Your task to perform on an android device: change your default location settings in chrome Image 0: 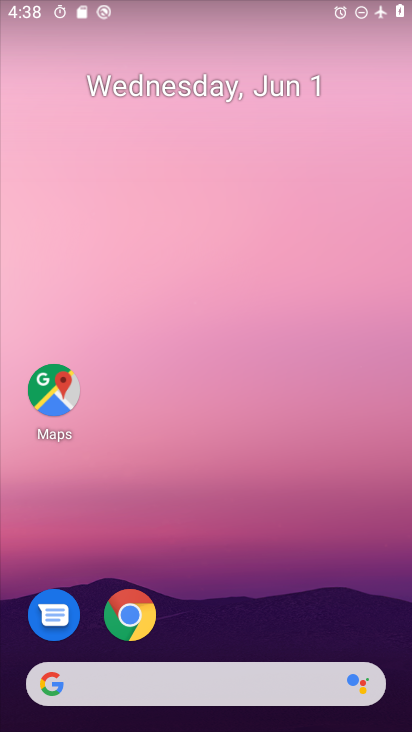
Step 0: drag from (245, 647) to (201, 150)
Your task to perform on an android device: change your default location settings in chrome Image 1: 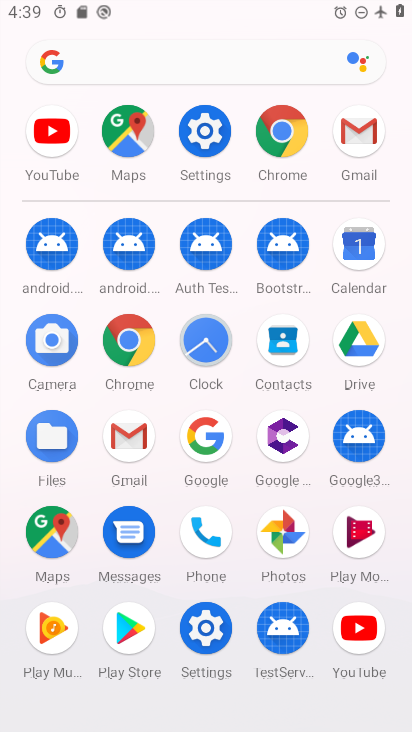
Step 1: click (273, 149)
Your task to perform on an android device: change your default location settings in chrome Image 2: 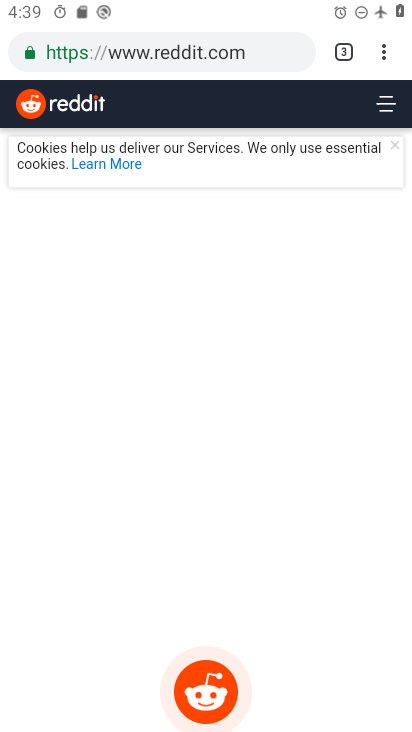
Step 2: click (385, 55)
Your task to perform on an android device: change your default location settings in chrome Image 3: 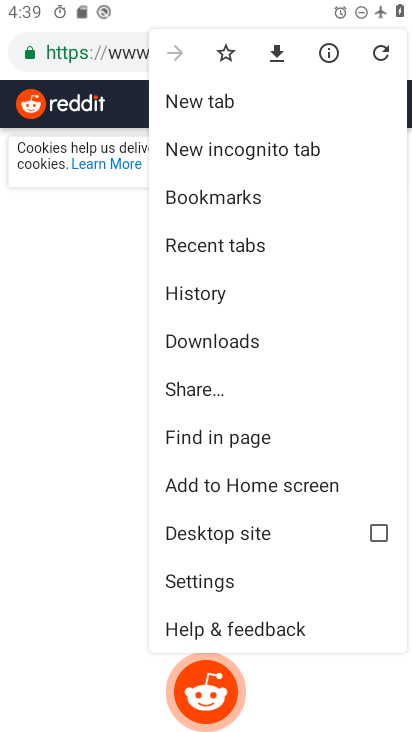
Step 3: click (226, 582)
Your task to perform on an android device: change your default location settings in chrome Image 4: 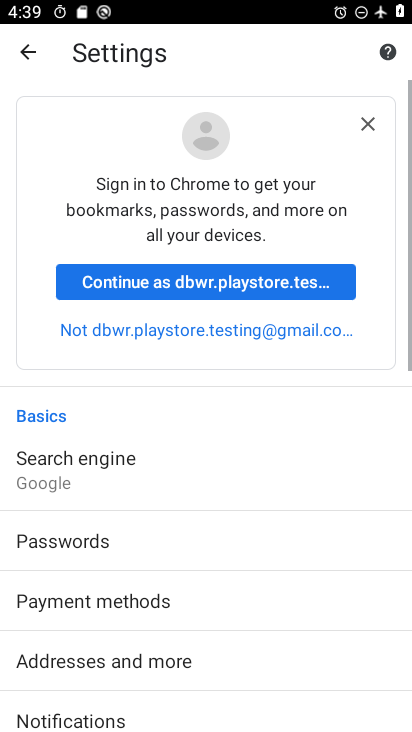
Step 4: drag from (226, 588) to (248, 374)
Your task to perform on an android device: change your default location settings in chrome Image 5: 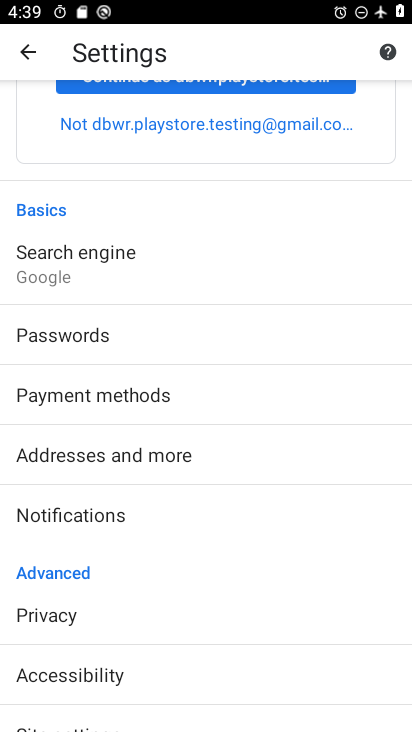
Step 5: click (244, 544)
Your task to perform on an android device: change your default location settings in chrome Image 6: 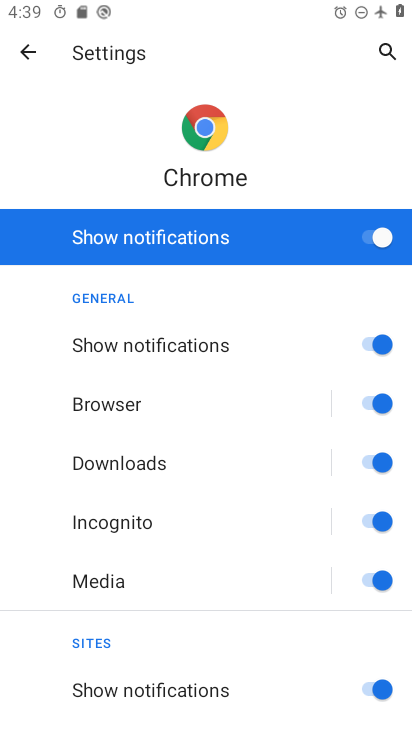
Step 6: press back button
Your task to perform on an android device: change your default location settings in chrome Image 7: 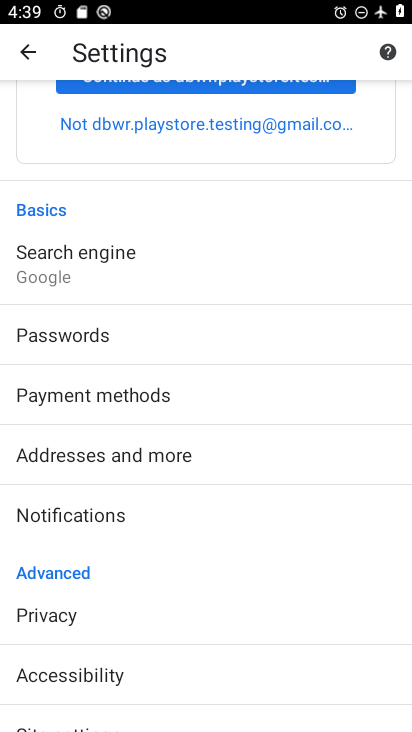
Step 7: click (141, 677)
Your task to perform on an android device: change your default location settings in chrome Image 8: 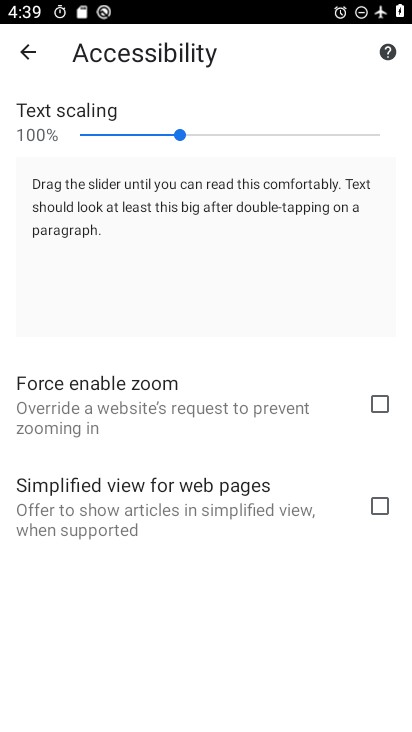
Step 8: press back button
Your task to perform on an android device: change your default location settings in chrome Image 9: 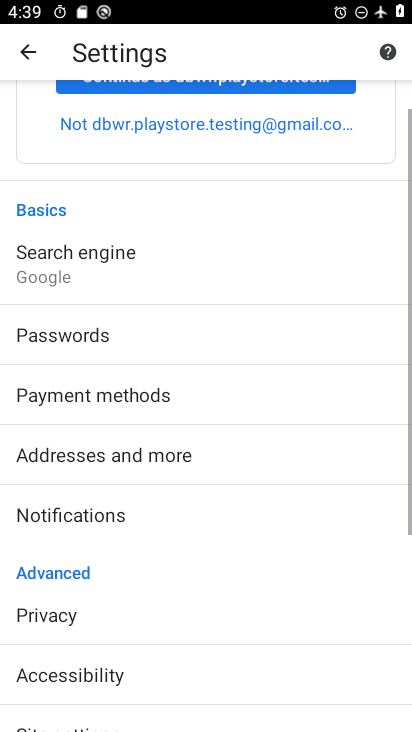
Step 9: click (110, 622)
Your task to perform on an android device: change your default location settings in chrome Image 10: 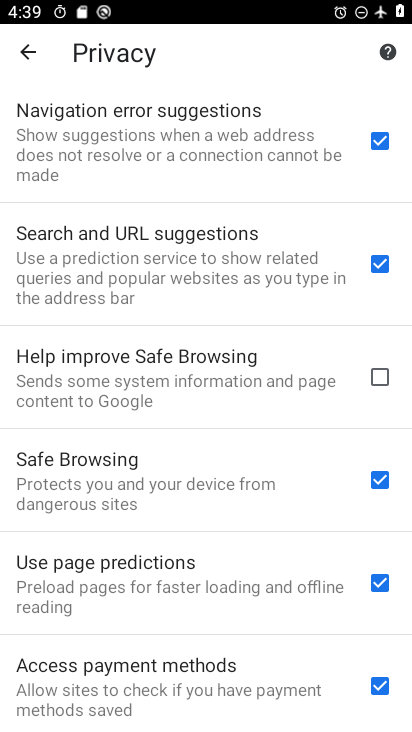
Step 10: press back button
Your task to perform on an android device: change your default location settings in chrome Image 11: 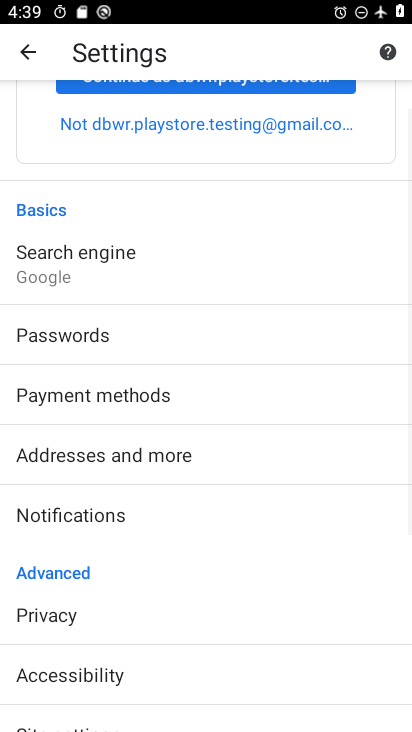
Step 11: drag from (224, 543) to (256, 340)
Your task to perform on an android device: change your default location settings in chrome Image 12: 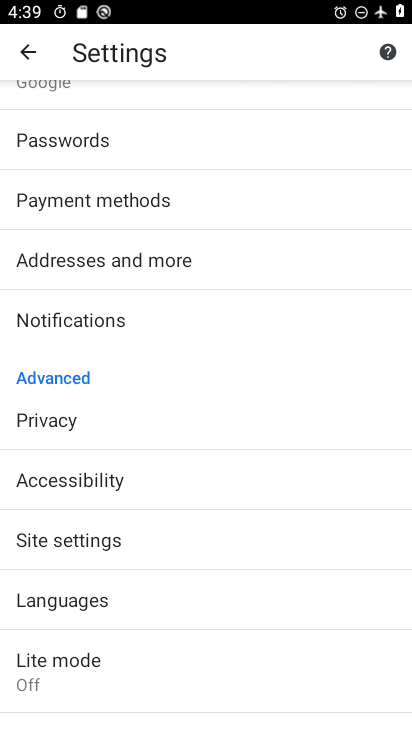
Step 12: drag from (191, 663) to (272, 296)
Your task to perform on an android device: change your default location settings in chrome Image 13: 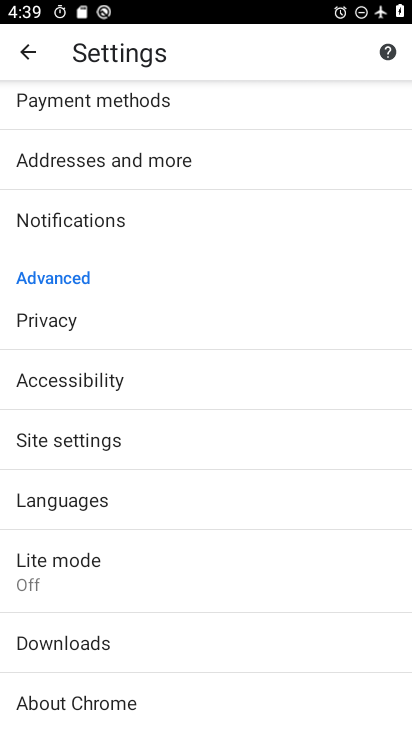
Step 13: click (147, 718)
Your task to perform on an android device: change your default location settings in chrome Image 14: 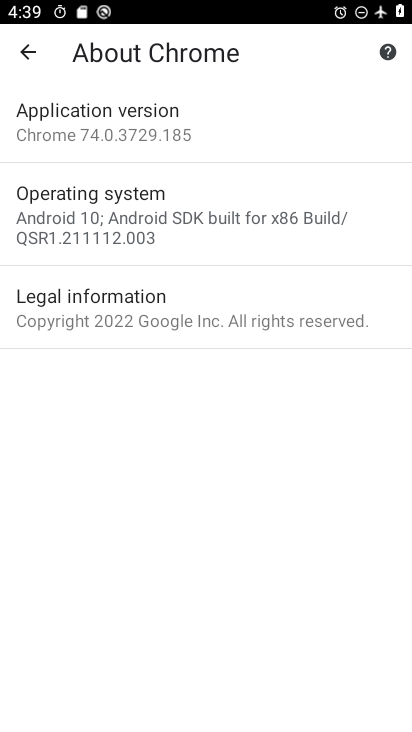
Step 14: press back button
Your task to perform on an android device: change your default location settings in chrome Image 15: 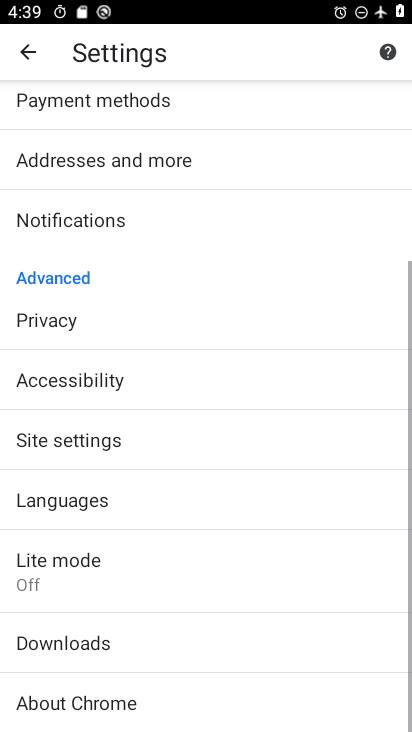
Step 15: drag from (308, 293) to (270, 496)
Your task to perform on an android device: change your default location settings in chrome Image 16: 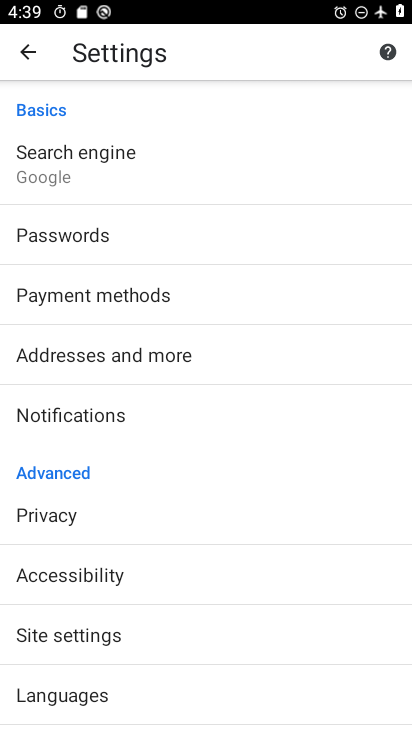
Step 16: click (57, 471)
Your task to perform on an android device: change your default location settings in chrome Image 17: 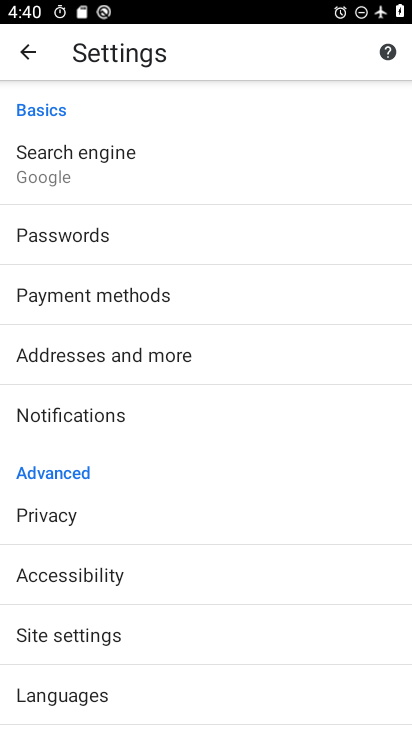
Step 17: click (106, 184)
Your task to perform on an android device: change your default location settings in chrome Image 18: 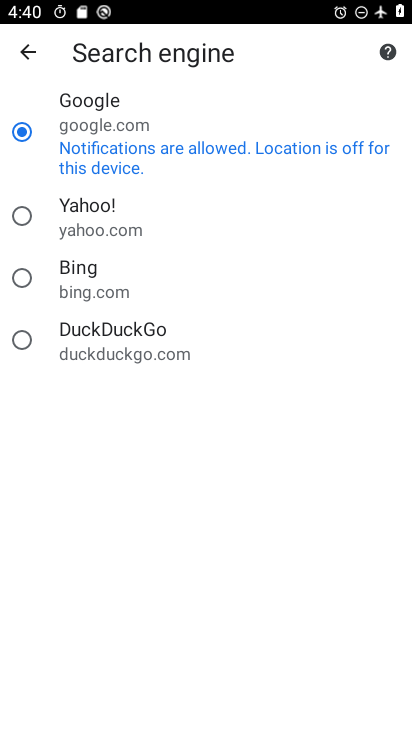
Step 18: click (140, 98)
Your task to perform on an android device: change your default location settings in chrome Image 19: 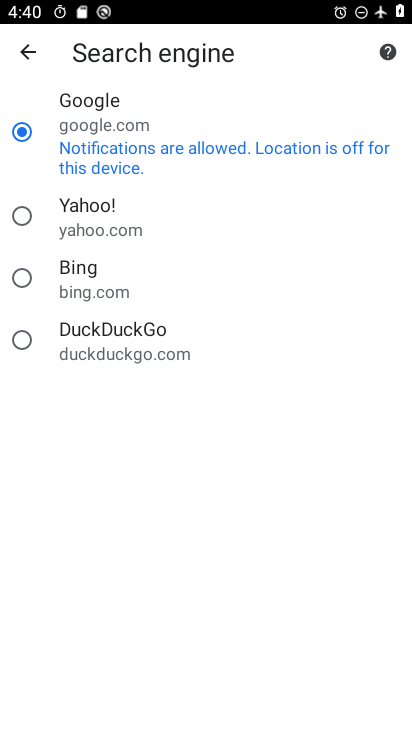
Step 19: press back button
Your task to perform on an android device: change your default location settings in chrome Image 20: 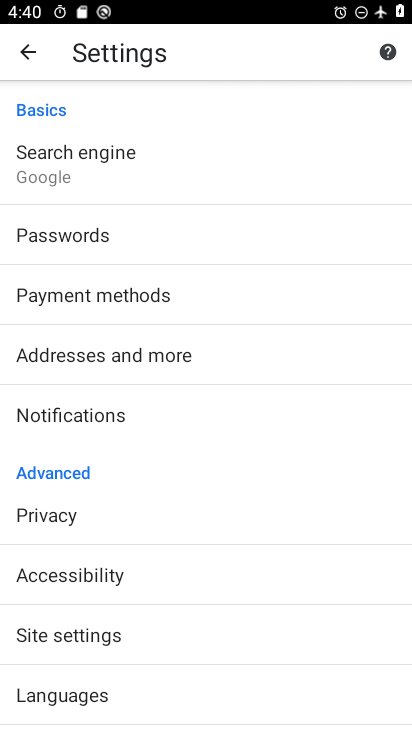
Step 20: click (95, 425)
Your task to perform on an android device: change your default location settings in chrome Image 21: 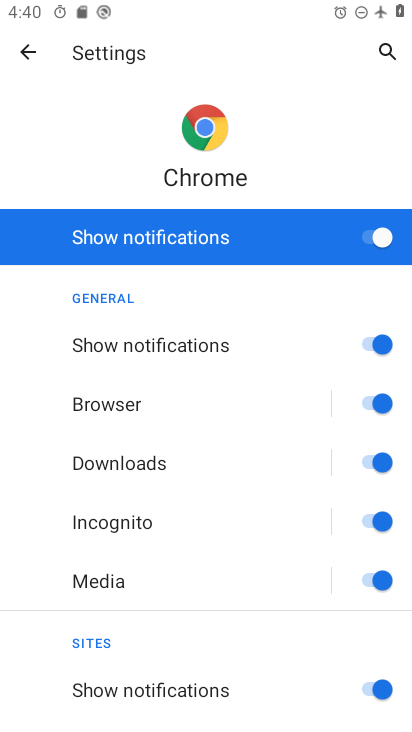
Step 21: drag from (299, 571) to (298, 231)
Your task to perform on an android device: change your default location settings in chrome Image 22: 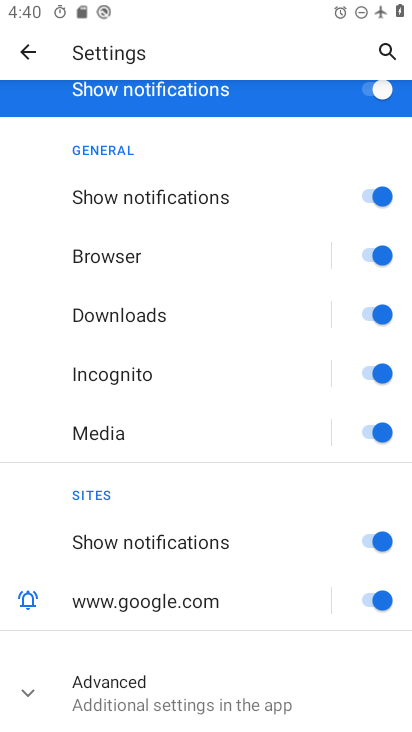
Step 22: click (252, 697)
Your task to perform on an android device: change your default location settings in chrome Image 23: 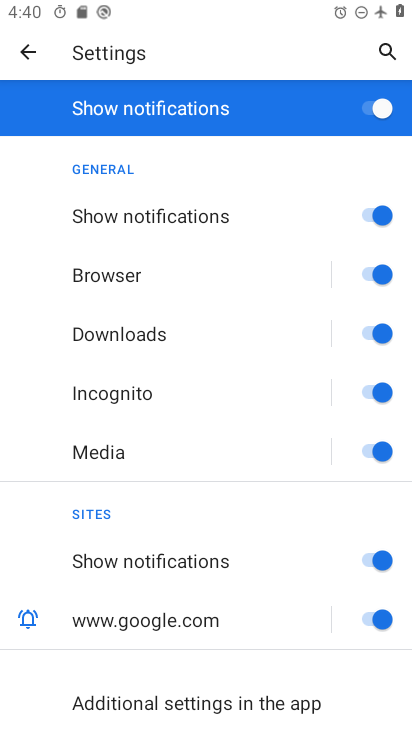
Step 23: drag from (267, 669) to (268, 351)
Your task to perform on an android device: change your default location settings in chrome Image 24: 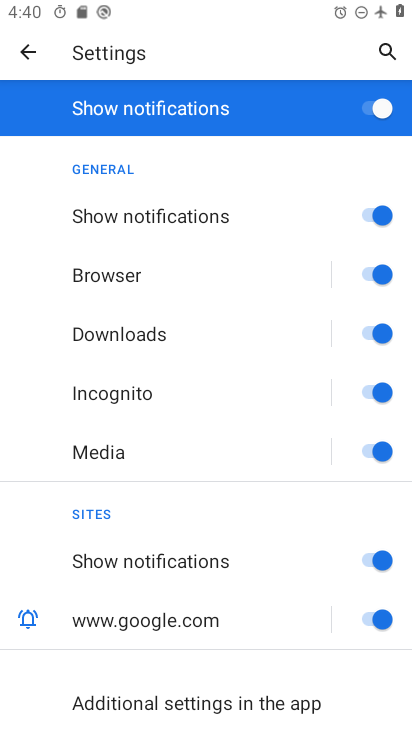
Step 24: drag from (257, 328) to (219, 578)
Your task to perform on an android device: change your default location settings in chrome Image 25: 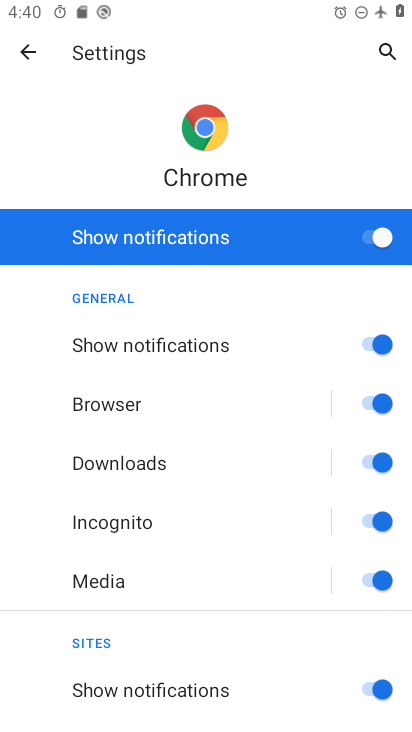
Step 25: press back button
Your task to perform on an android device: change your default location settings in chrome Image 26: 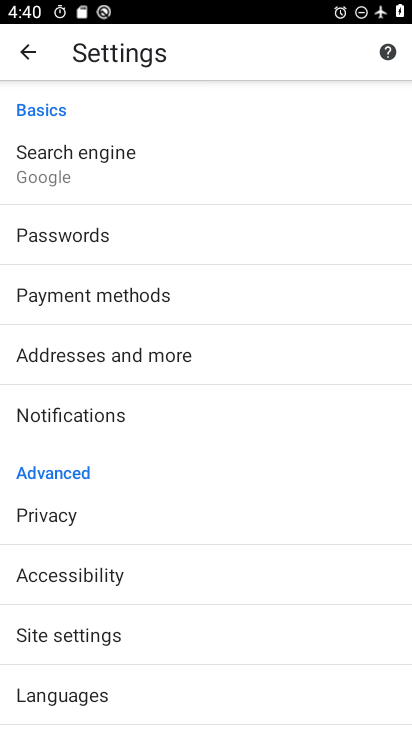
Step 26: click (83, 152)
Your task to perform on an android device: change your default location settings in chrome Image 27: 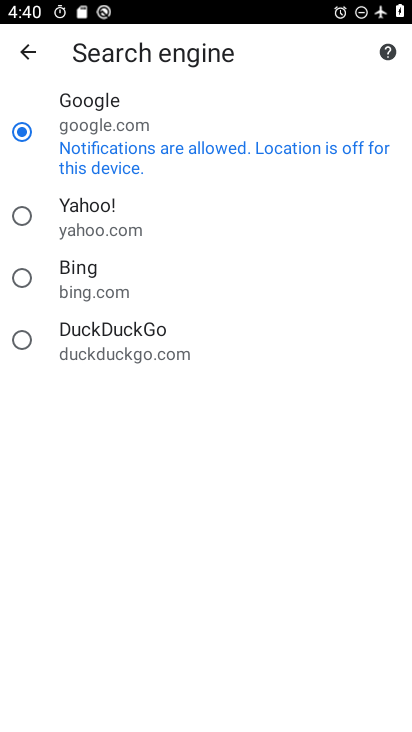
Step 27: task complete